Your task to perform on an android device: change your default location settings in chrome Image 0: 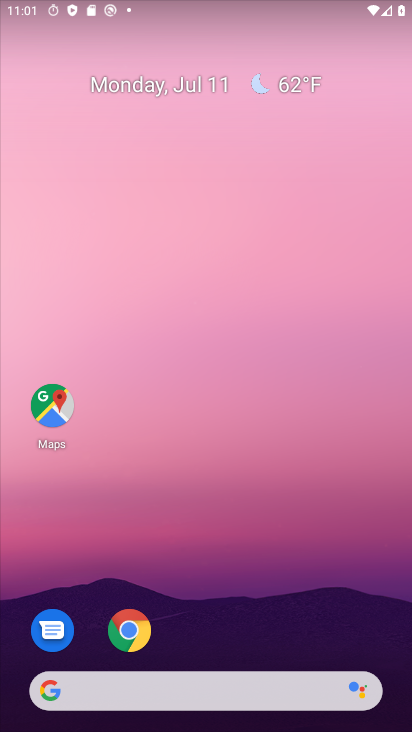
Step 0: drag from (291, 679) to (275, 16)
Your task to perform on an android device: change your default location settings in chrome Image 1: 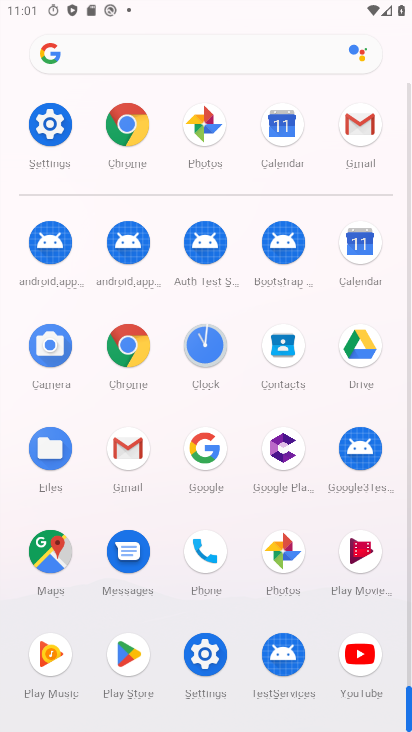
Step 1: click (131, 347)
Your task to perform on an android device: change your default location settings in chrome Image 2: 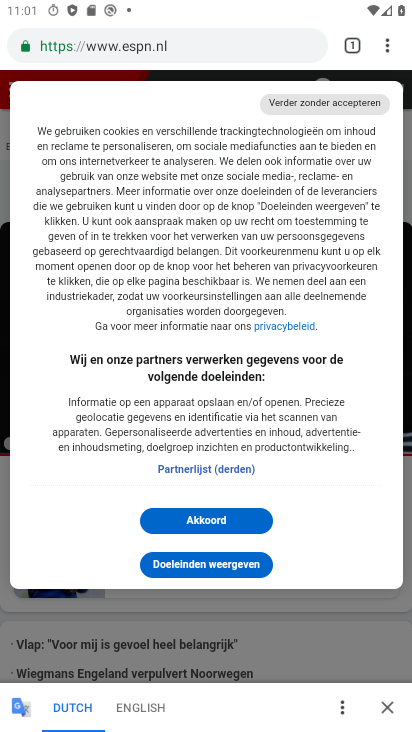
Step 2: drag from (381, 40) to (251, 546)
Your task to perform on an android device: change your default location settings in chrome Image 3: 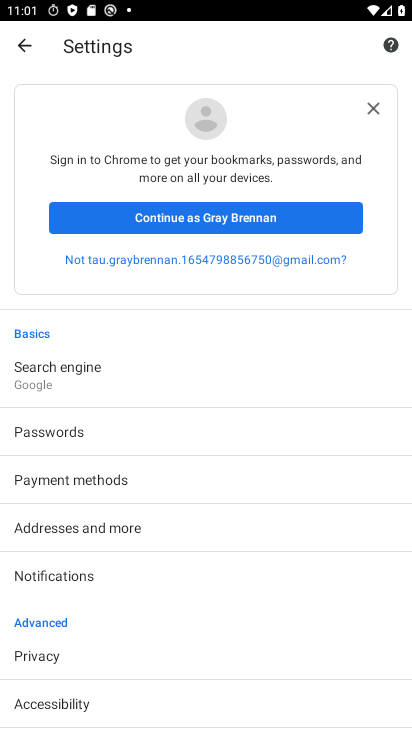
Step 3: drag from (121, 649) to (139, 148)
Your task to perform on an android device: change your default location settings in chrome Image 4: 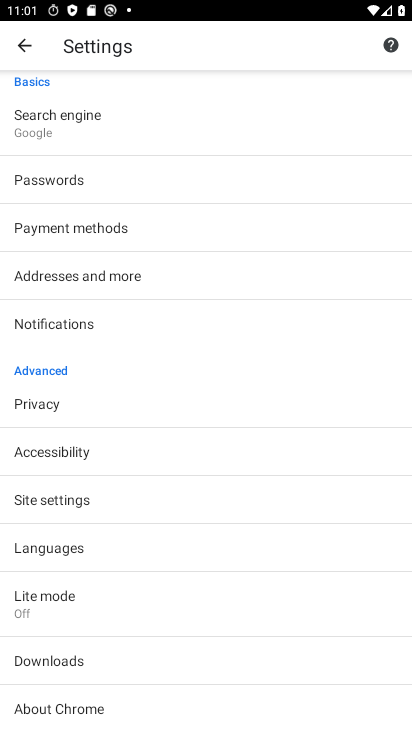
Step 4: click (76, 503)
Your task to perform on an android device: change your default location settings in chrome Image 5: 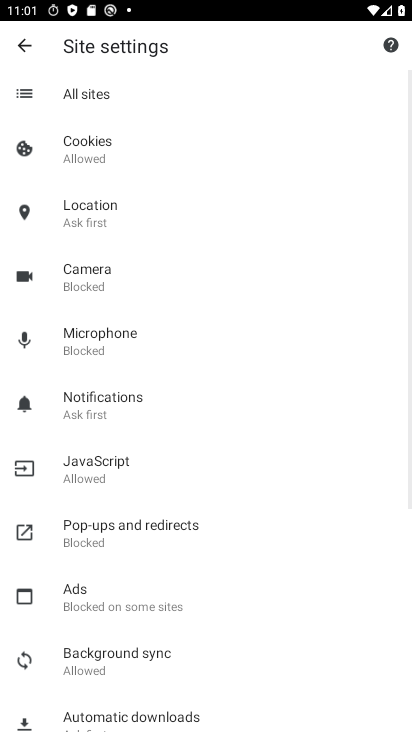
Step 5: click (108, 196)
Your task to perform on an android device: change your default location settings in chrome Image 6: 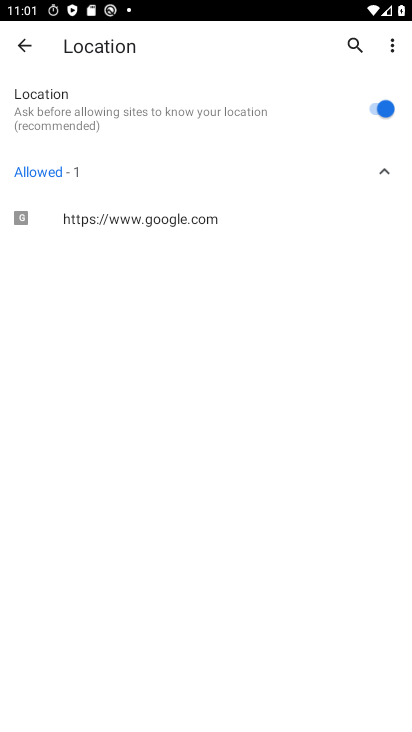
Step 6: task complete